Your task to perform on an android device: Open ESPN.com Image 0: 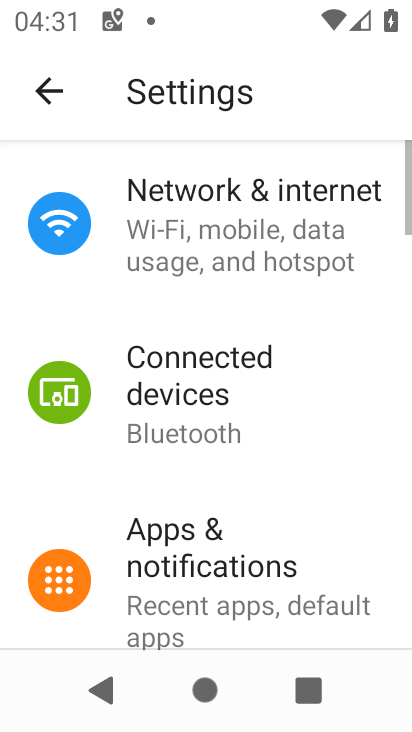
Step 0: press home button
Your task to perform on an android device: Open ESPN.com Image 1: 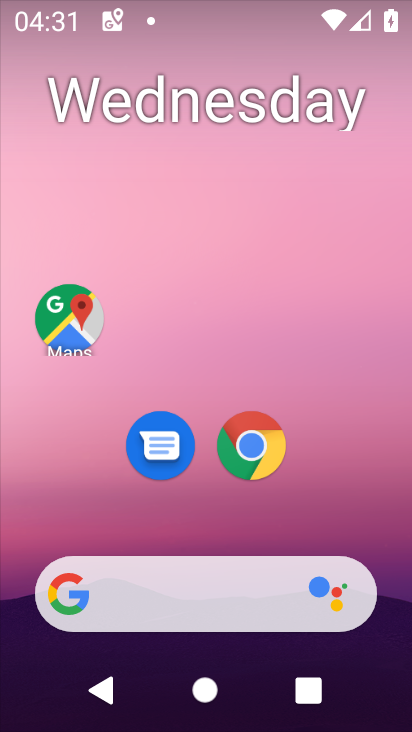
Step 1: click (229, 578)
Your task to perform on an android device: Open ESPN.com Image 2: 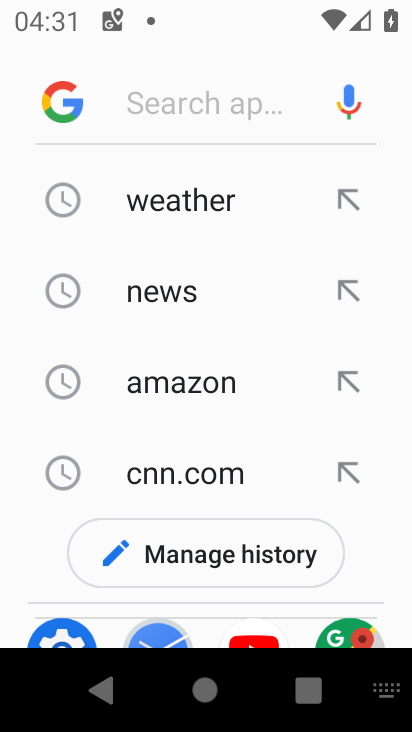
Step 2: type "espn.com"
Your task to perform on an android device: Open ESPN.com Image 3: 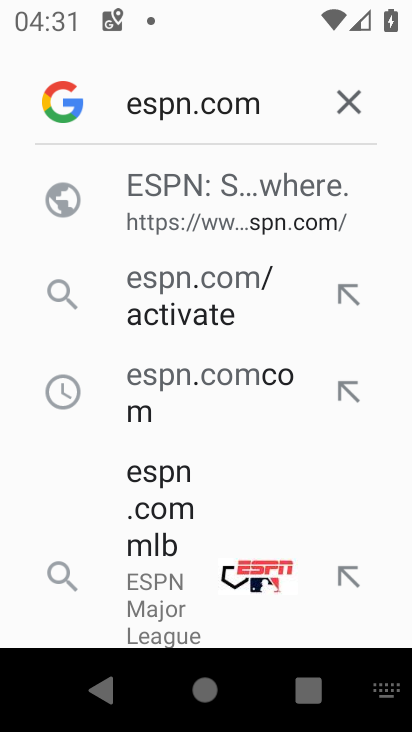
Step 3: click (284, 208)
Your task to perform on an android device: Open ESPN.com Image 4: 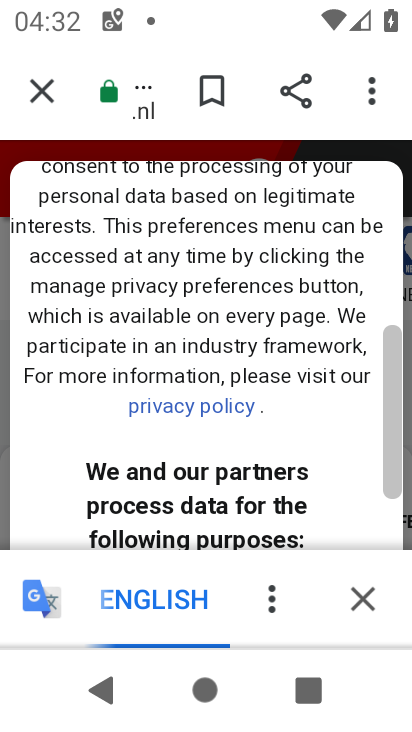
Step 4: task complete